Your task to perform on an android device: delete a single message in the gmail app Image 0: 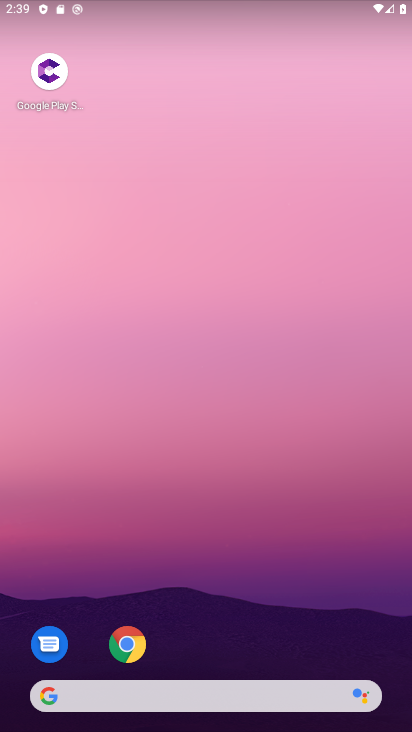
Step 0: click (211, 500)
Your task to perform on an android device: delete a single message in the gmail app Image 1: 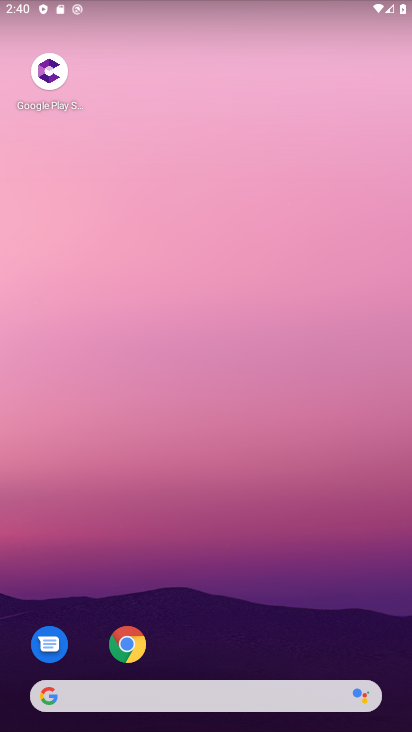
Step 1: drag from (190, 651) to (223, 274)
Your task to perform on an android device: delete a single message in the gmail app Image 2: 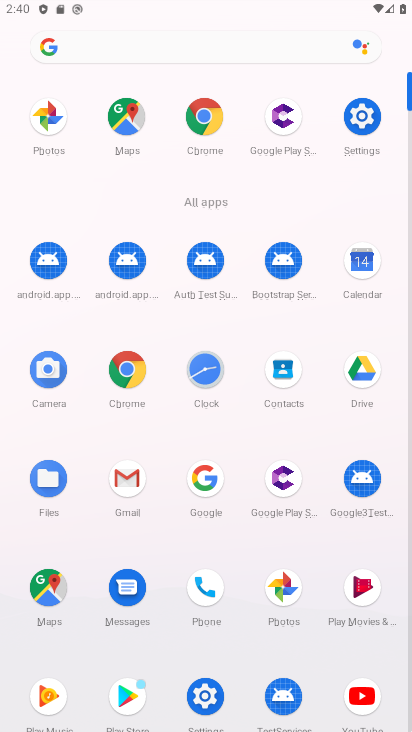
Step 2: click (124, 470)
Your task to perform on an android device: delete a single message in the gmail app Image 3: 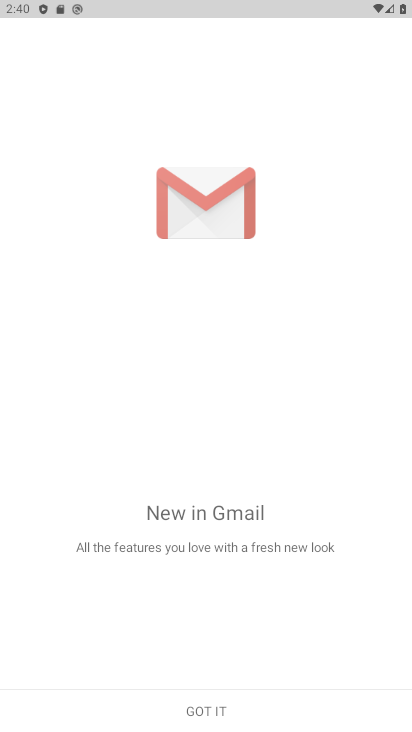
Step 3: drag from (262, 592) to (253, 328)
Your task to perform on an android device: delete a single message in the gmail app Image 4: 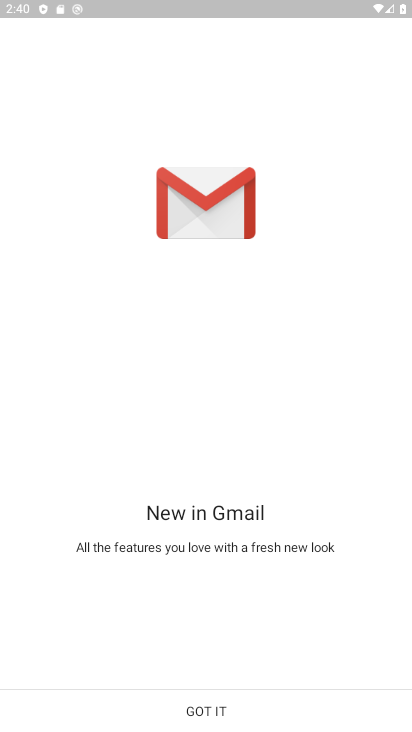
Step 4: drag from (209, 531) to (261, 248)
Your task to perform on an android device: delete a single message in the gmail app Image 5: 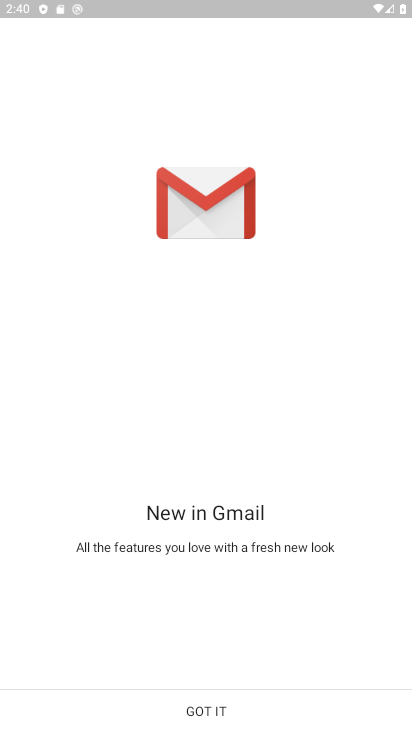
Step 5: click (201, 724)
Your task to perform on an android device: delete a single message in the gmail app Image 6: 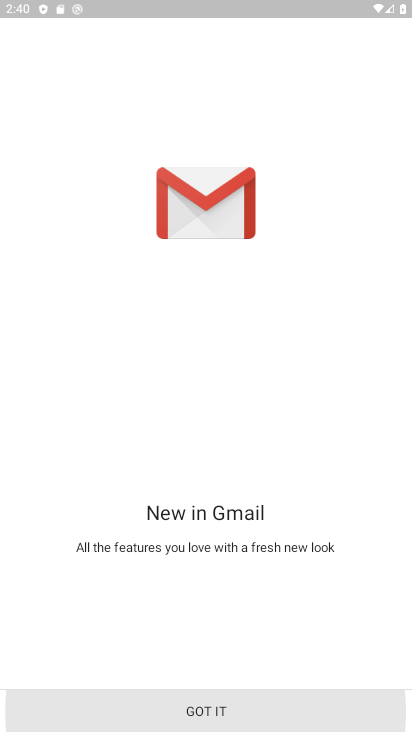
Step 6: click (195, 710)
Your task to perform on an android device: delete a single message in the gmail app Image 7: 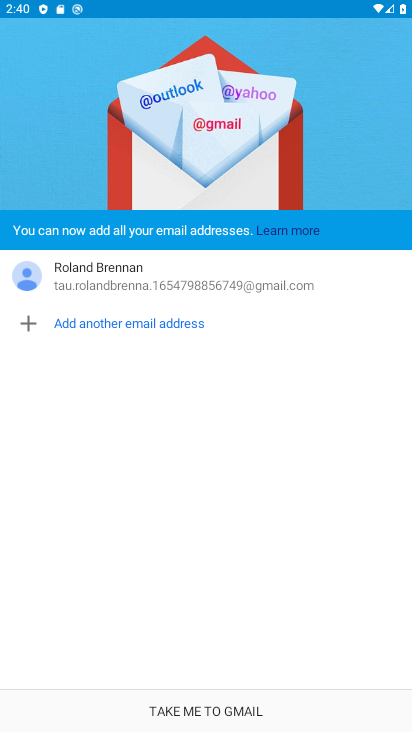
Step 7: drag from (246, 554) to (272, 295)
Your task to perform on an android device: delete a single message in the gmail app Image 8: 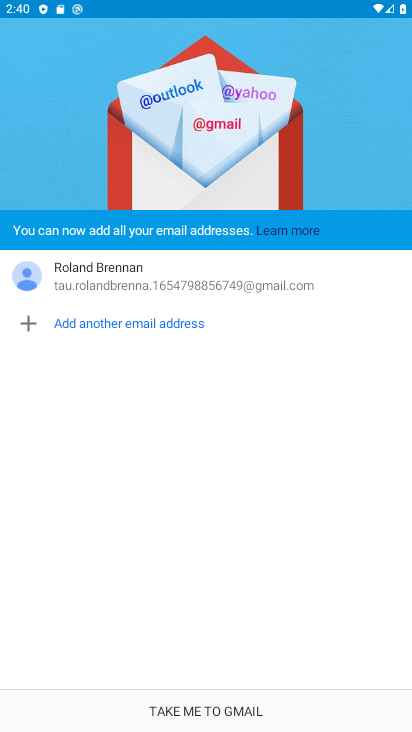
Step 8: click (169, 707)
Your task to perform on an android device: delete a single message in the gmail app Image 9: 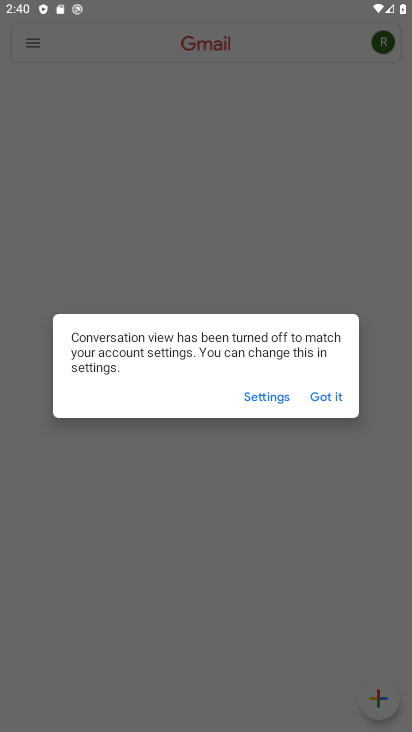
Step 9: click (322, 400)
Your task to perform on an android device: delete a single message in the gmail app Image 10: 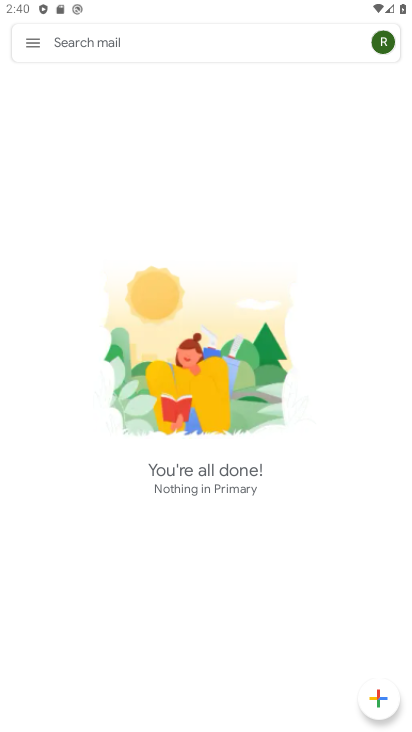
Step 10: drag from (231, 477) to (248, 203)
Your task to perform on an android device: delete a single message in the gmail app Image 11: 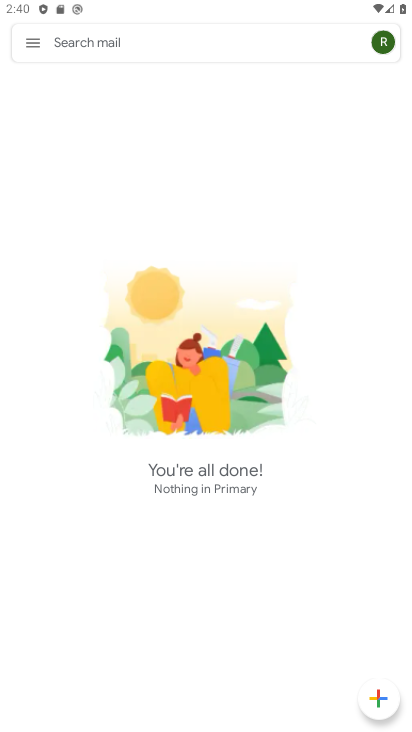
Step 11: click (27, 41)
Your task to perform on an android device: delete a single message in the gmail app Image 12: 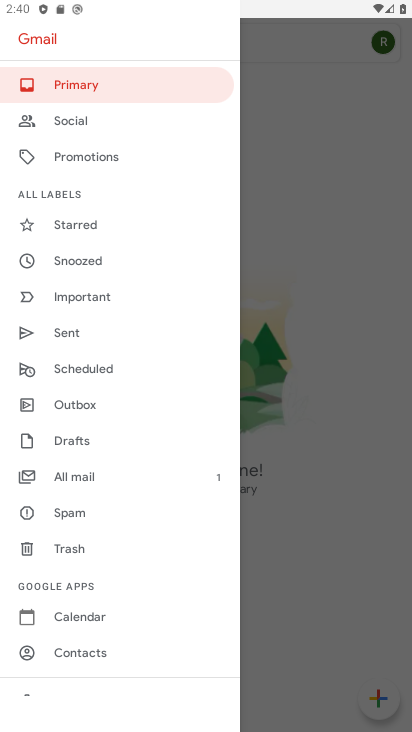
Step 12: drag from (121, 476) to (159, 201)
Your task to perform on an android device: delete a single message in the gmail app Image 13: 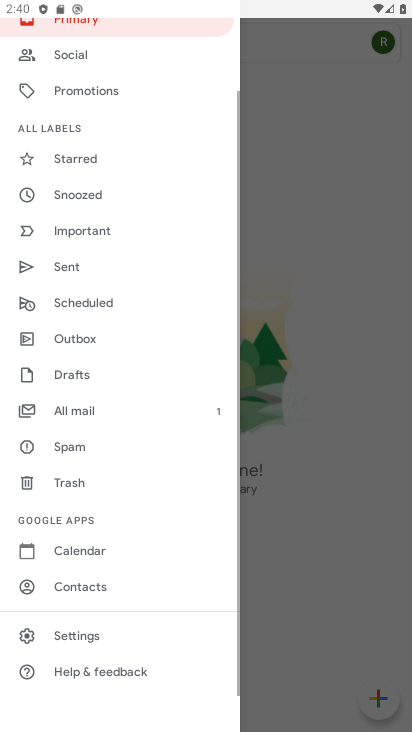
Step 13: click (371, 231)
Your task to perform on an android device: delete a single message in the gmail app Image 14: 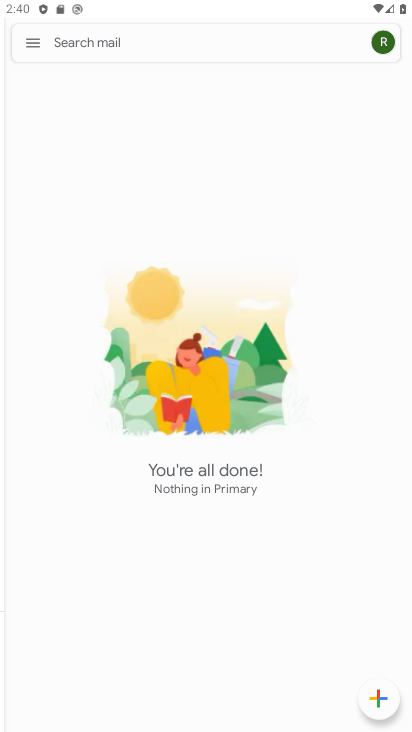
Step 14: task complete